Your task to perform on an android device: turn smart compose on in the gmail app Image 0: 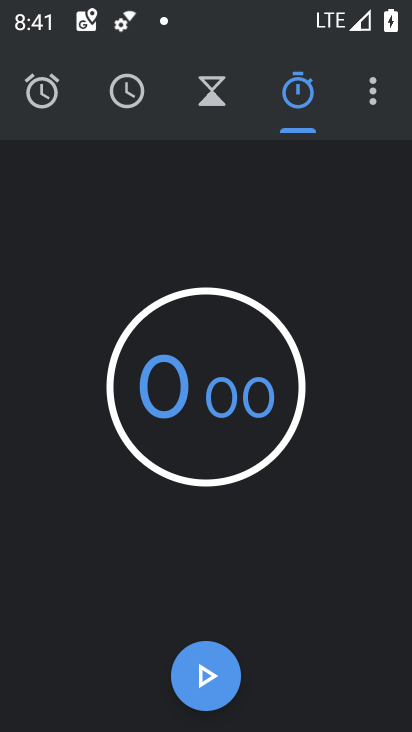
Step 0: press home button
Your task to perform on an android device: turn smart compose on in the gmail app Image 1: 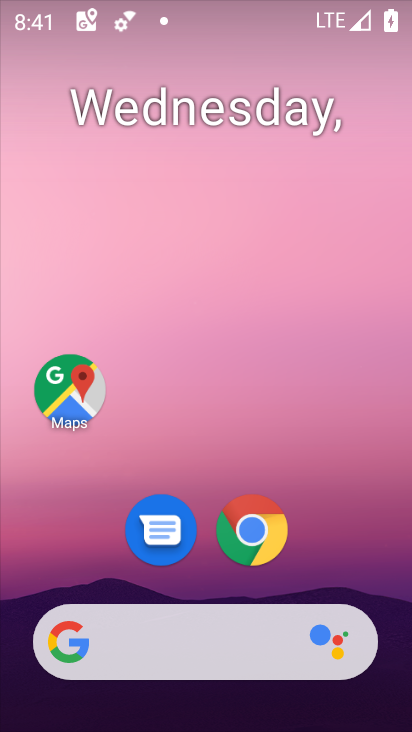
Step 1: drag from (390, 642) to (226, 52)
Your task to perform on an android device: turn smart compose on in the gmail app Image 2: 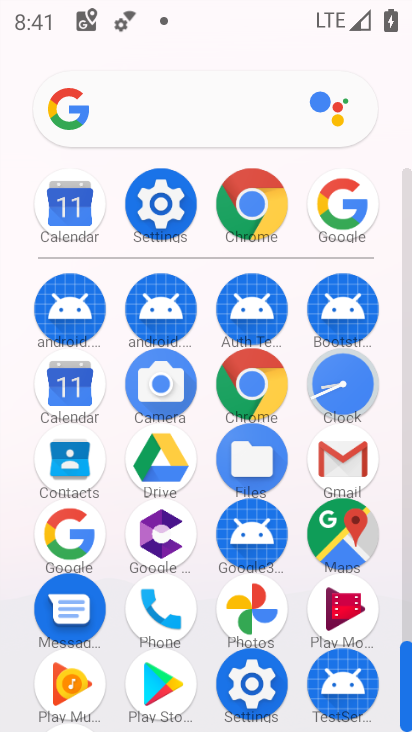
Step 2: click (328, 453)
Your task to perform on an android device: turn smart compose on in the gmail app Image 3: 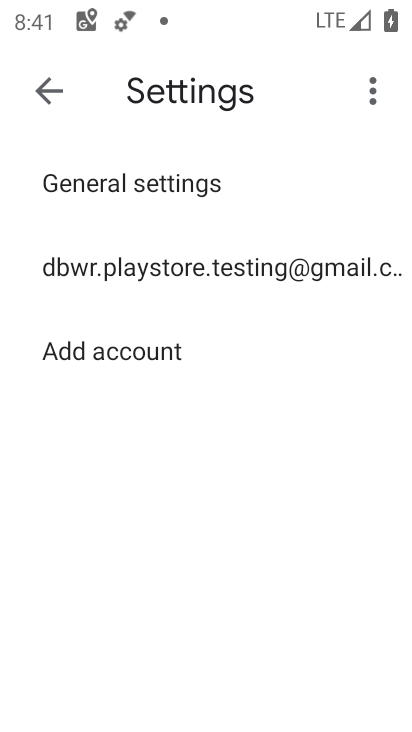
Step 3: click (84, 254)
Your task to perform on an android device: turn smart compose on in the gmail app Image 4: 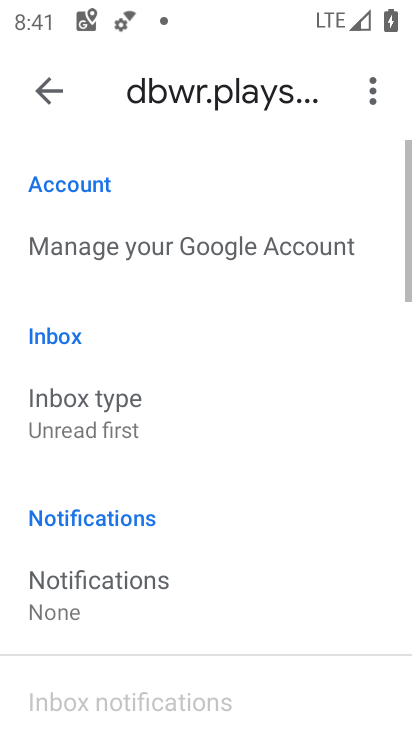
Step 4: task complete